Your task to perform on an android device: toggle show notifications on the lock screen Image 0: 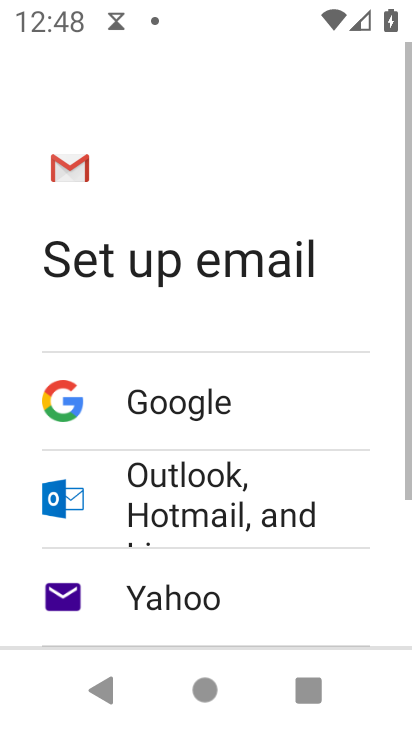
Step 0: press home button
Your task to perform on an android device: toggle show notifications on the lock screen Image 1: 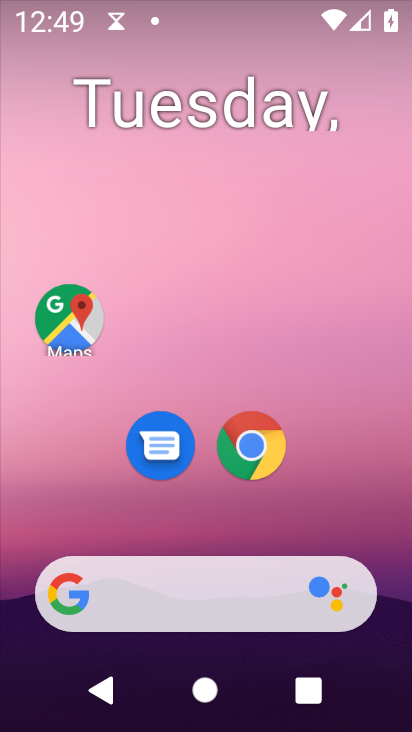
Step 1: drag from (289, 579) to (201, 58)
Your task to perform on an android device: toggle show notifications on the lock screen Image 2: 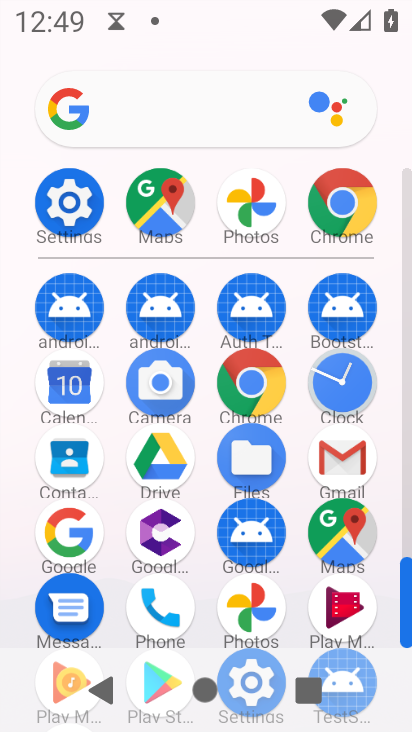
Step 2: click (82, 209)
Your task to perform on an android device: toggle show notifications on the lock screen Image 3: 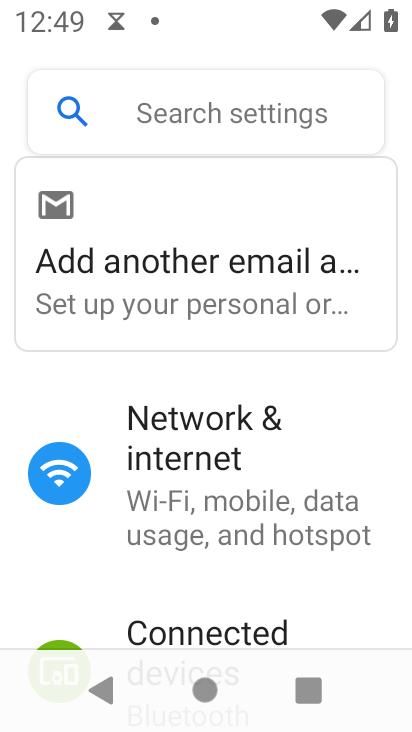
Step 3: drag from (224, 547) to (206, 37)
Your task to perform on an android device: toggle show notifications on the lock screen Image 4: 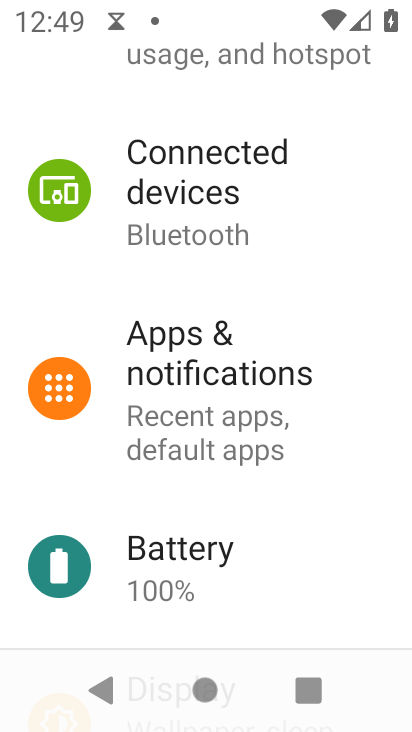
Step 4: click (248, 409)
Your task to perform on an android device: toggle show notifications on the lock screen Image 5: 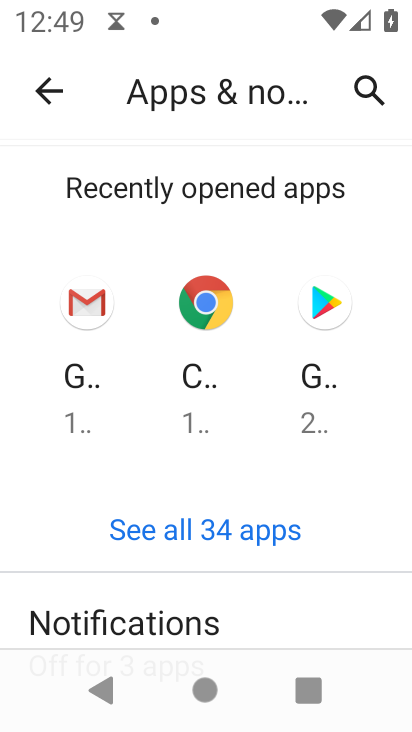
Step 5: drag from (257, 617) to (295, 117)
Your task to perform on an android device: toggle show notifications on the lock screen Image 6: 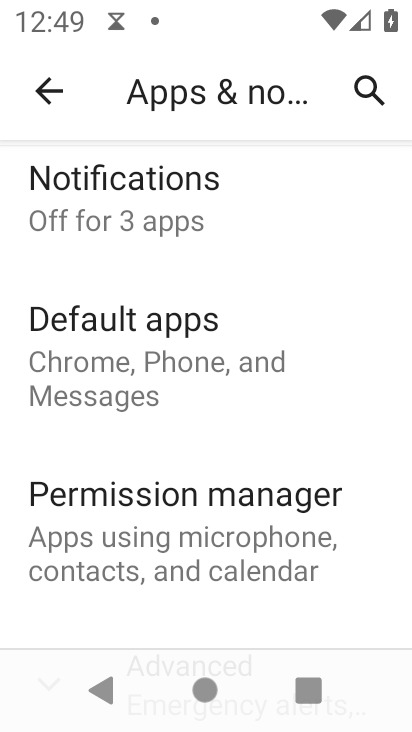
Step 6: click (208, 231)
Your task to perform on an android device: toggle show notifications on the lock screen Image 7: 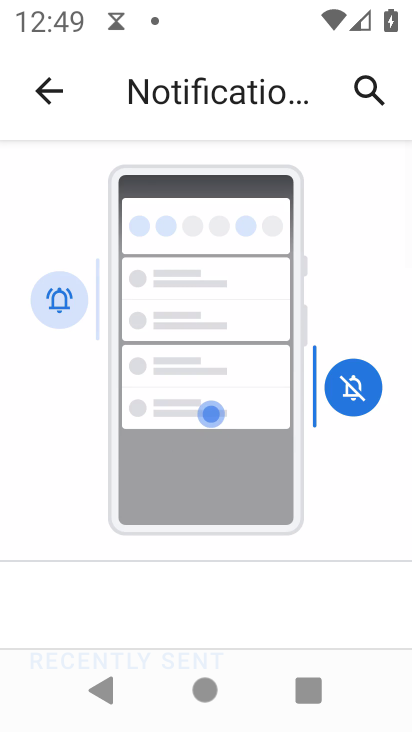
Step 7: drag from (208, 635) to (225, 207)
Your task to perform on an android device: toggle show notifications on the lock screen Image 8: 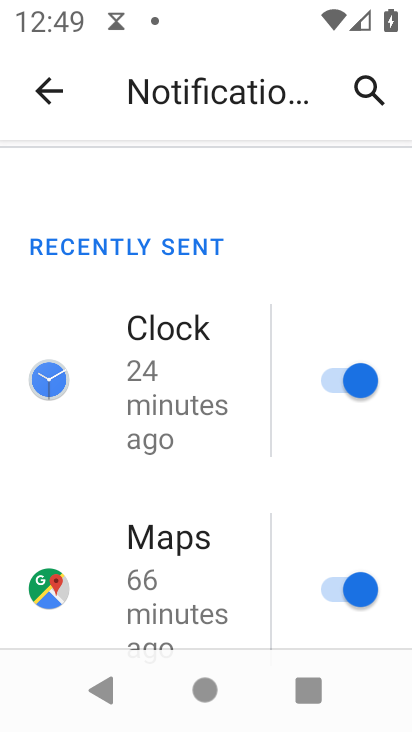
Step 8: drag from (265, 623) to (227, 189)
Your task to perform on an android device: toggle show notifications on the lock screen Image 9: 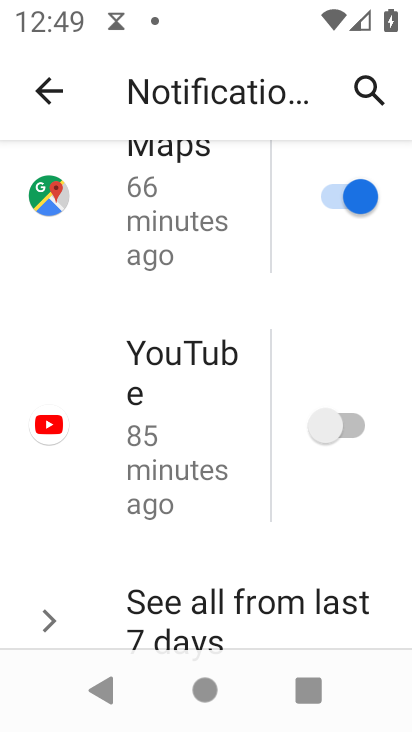
Step 9: drag from (230, 600) to (241, 116)
Your task to perform on an android device: toggle show notifications on the lock screen Image 10: 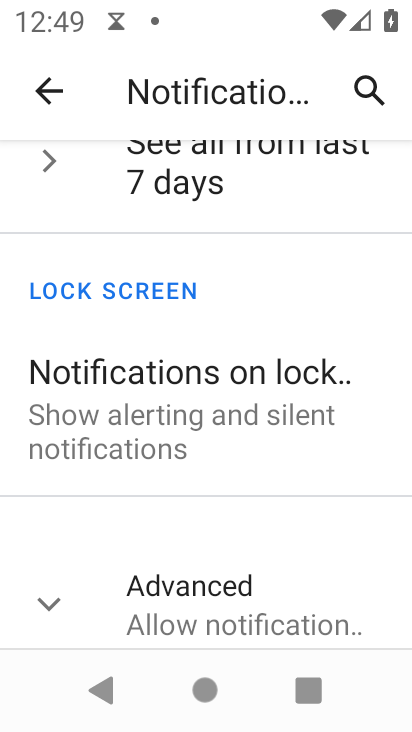
Step 10: click (191, 391)
Your task to perform on an android device: toggle show notifications on the lock screen Image 11: 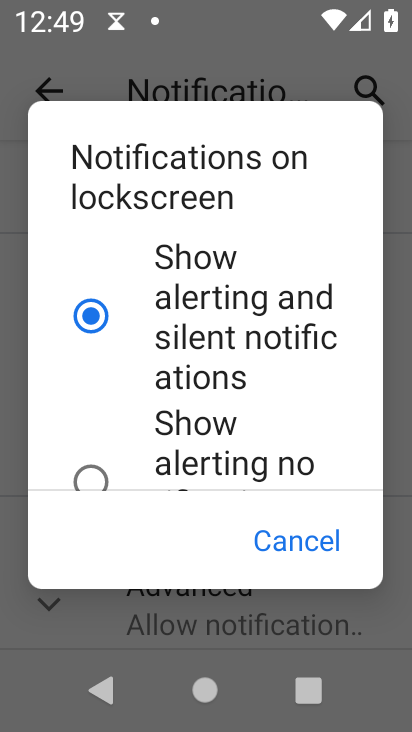
Step 11: click (197, 435)
Your task to perform on an android device: toggle show notifications on the lock screen Image 12: 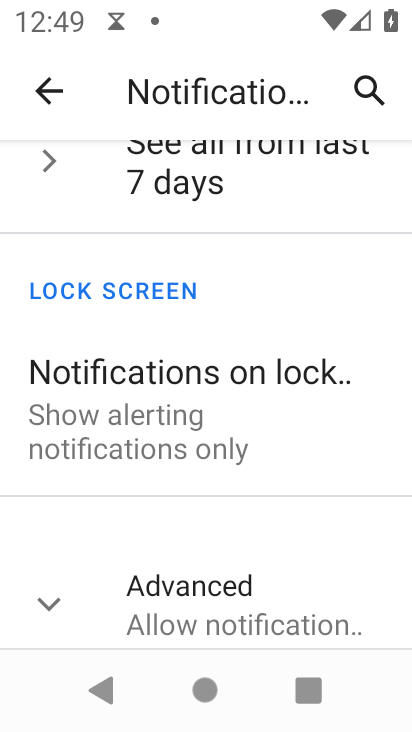
Step 12: task complete